Your task to perform on an android device: Open Chrome and go to the settings page Image 0: 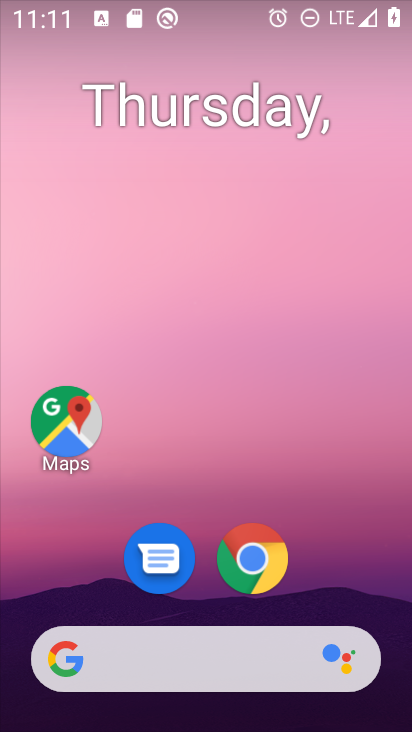
Step 0: click (248, 558)
Your task to perform on an android device: Open Chrome and go to the settings page Image 1: 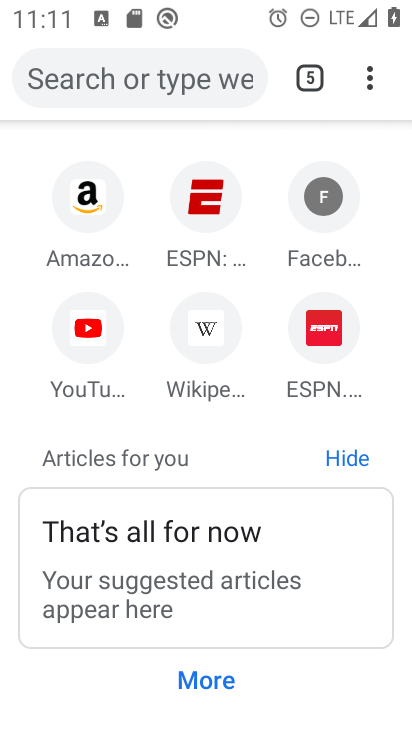
Step 1: click (366, 84)
Your task to perform on an android device: Open Chrome and go to the settings page Image 2: 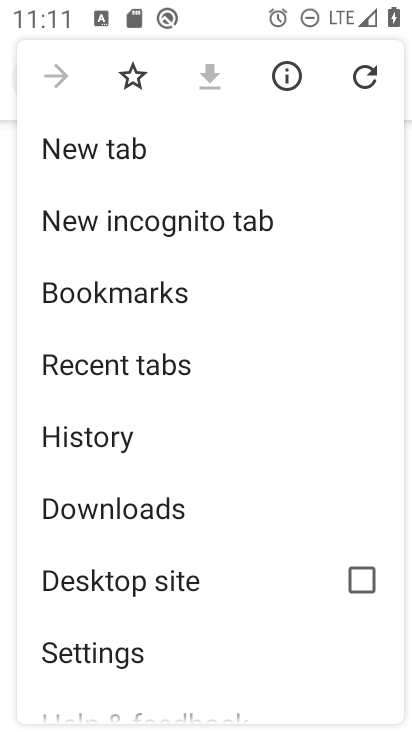
Step 2: click (88, 649)
Your task to perform on an android device: Open Chrome and go to the settings page Image 3: 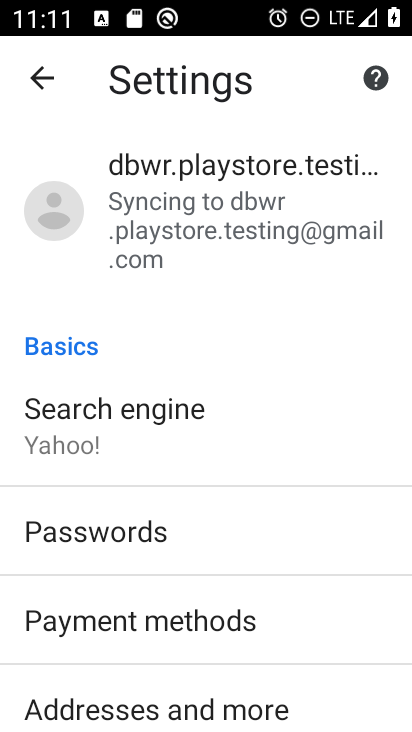
Step 3: task complete